Your task to perform on an android device: star an email in the gmail app Image 0: 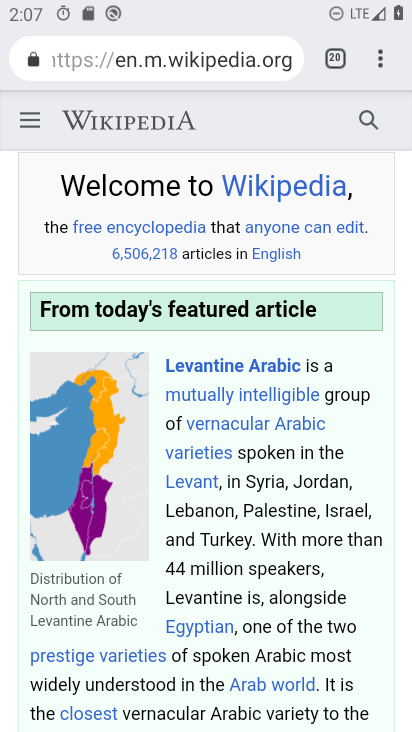
Step 0: press home button
Your task to perform on an android device: star an email in the gmail app Image 1: 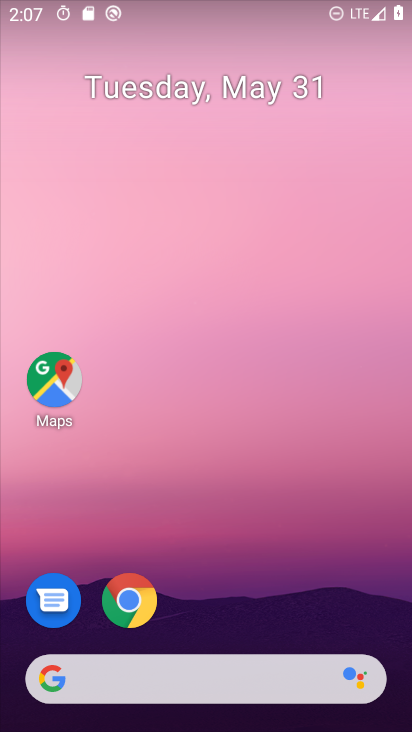
Step 1: drag from (215, 710) to (217, 258)
Your task to perform on an android device: star an email in the gmail app Image 2: 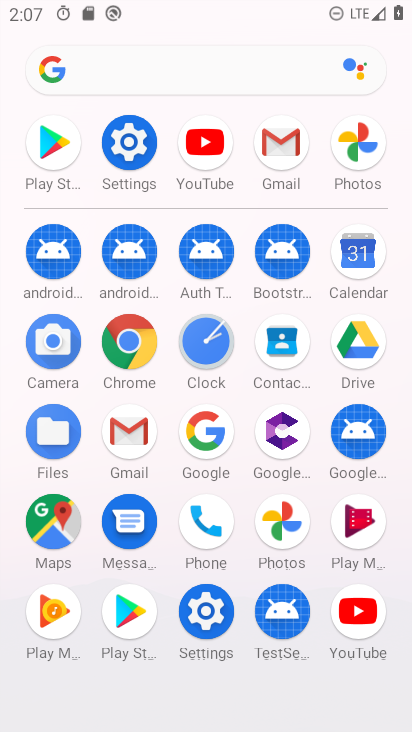
Step 2: click (130, 424)
Your task to perform on an android device: star an email in the gmail app Image 3: 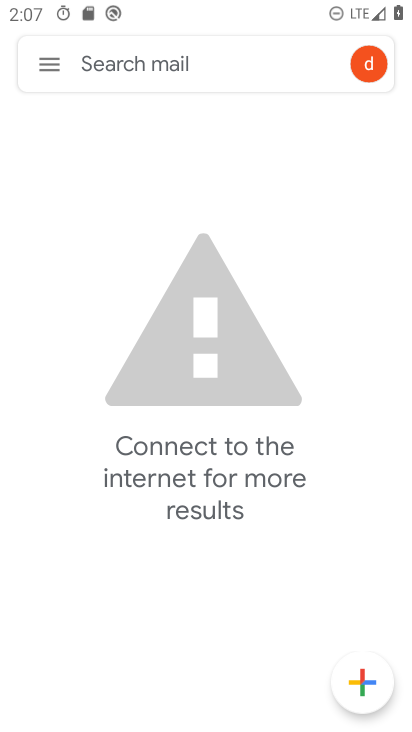
Step 3: click (47, 65)
Your task to perform on an android device: star an email in the gmail app Image 4: 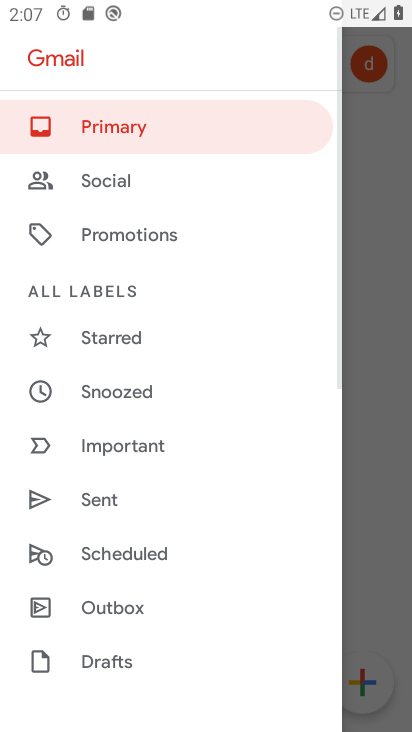
Step 4: drag from (140, 206) to (141, 558)
Your task to perform on an android device: star an email in the gmail app Image 5: 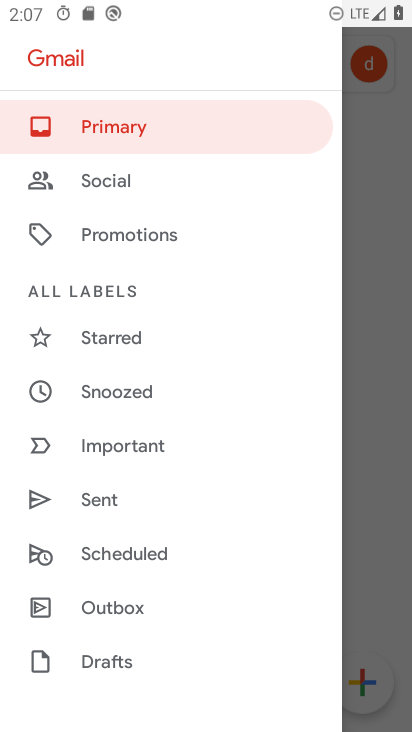
Step 5: click (127, 130)
Your task to perform on an android device: star an email in the gmail app Image 6: 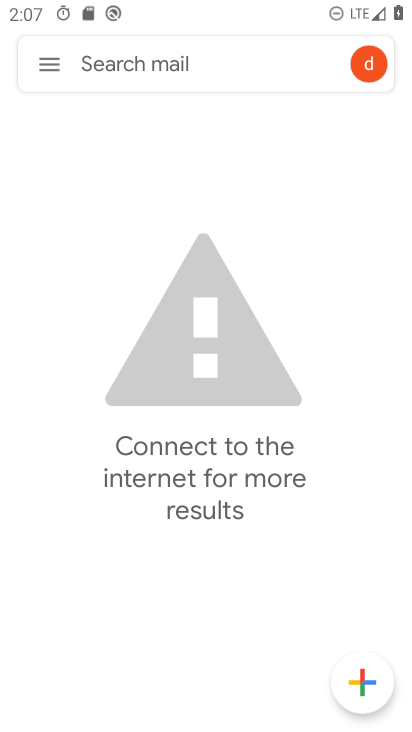
Step 6: task complete